Your task to perform on an android device: Go to location settings Image 0: 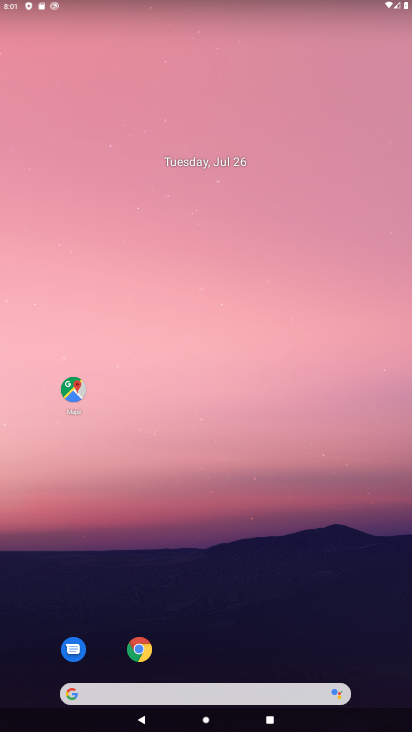
Step 0: drag from (220, 647) to (221, 84)
Your task to perform on an android device: Go to location settings Image 1: 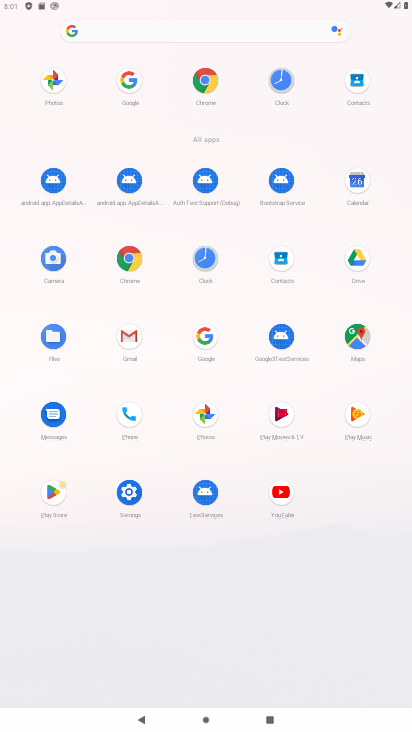
Step 1: click (123, 491)
Your task to perform on an android device: Go to location settings Image 2: 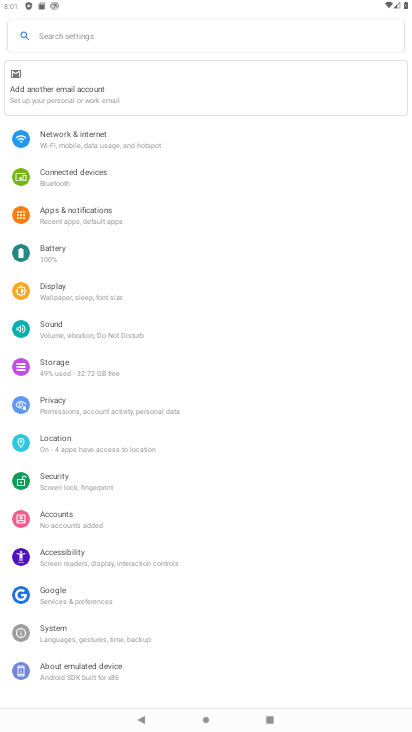
Step 2: click (64, 446)
Your task to perform on an android device: Go to location settings Image 3: 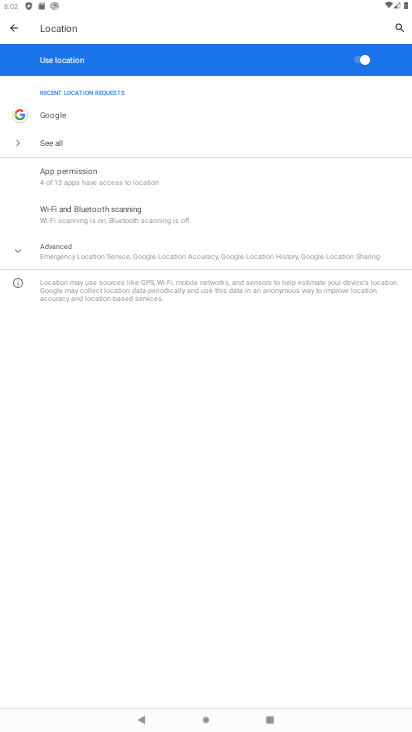
Step 3: task complete